Your task to perform on an android device: What's the weather? Image 0: 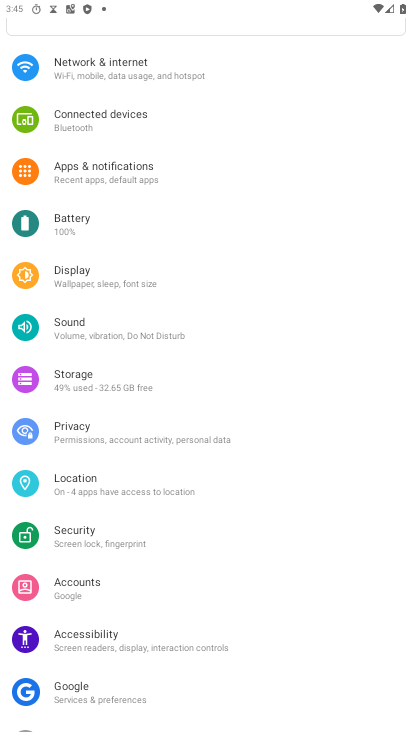
Step 0: press home button
Your task to perform on an android device: What's the weather? Image 1: 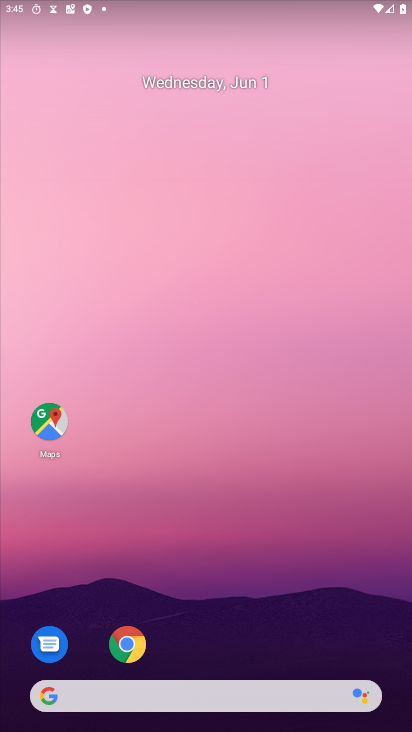
Step 1: click (236, 699)
Your task to perform on an android device: What's the weather? Image 2: 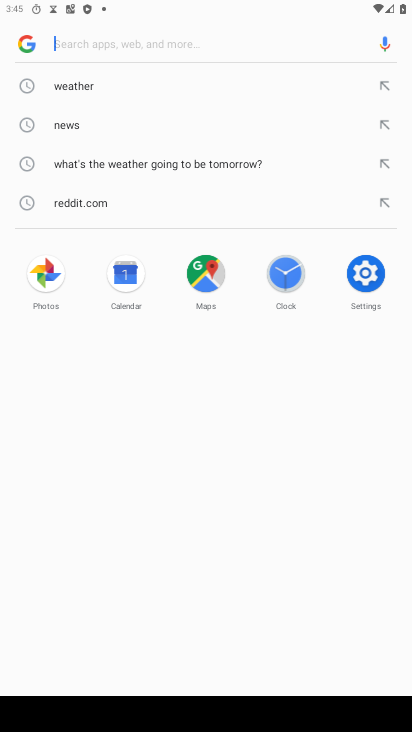
Step 2: click (76, 82)
Your task to perform on an android device: What's the weather? Image 3: 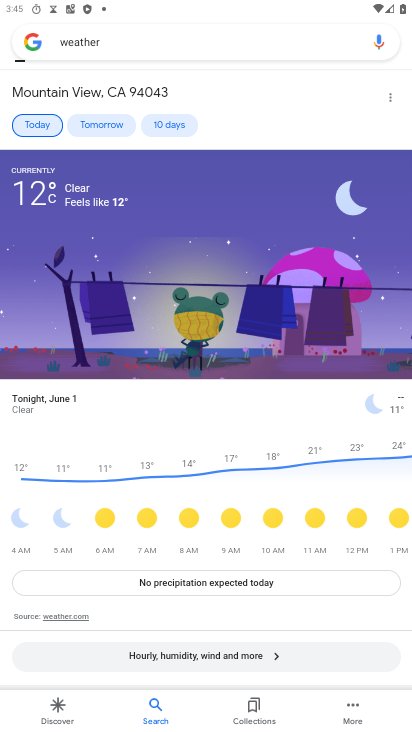
Step 3: task complete